Your task to perform on an android device: find which apps use the phone's location Image 0: 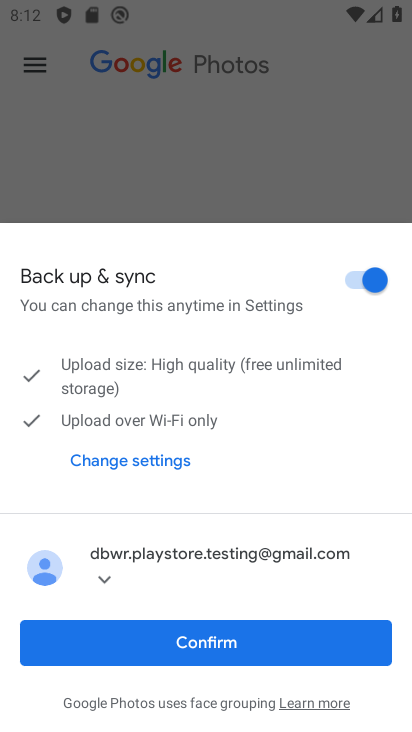
Step 0: press home button
Your task to perform on an android device: find which apps use the phone's location Image 1: 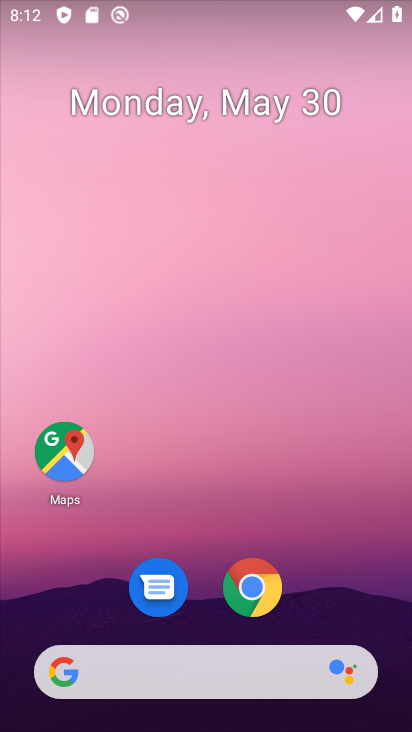
Step 1: drag from (202, 612) to (253, 15)
Your task to perform on an android device: find which apps use the phone's location Image 2: 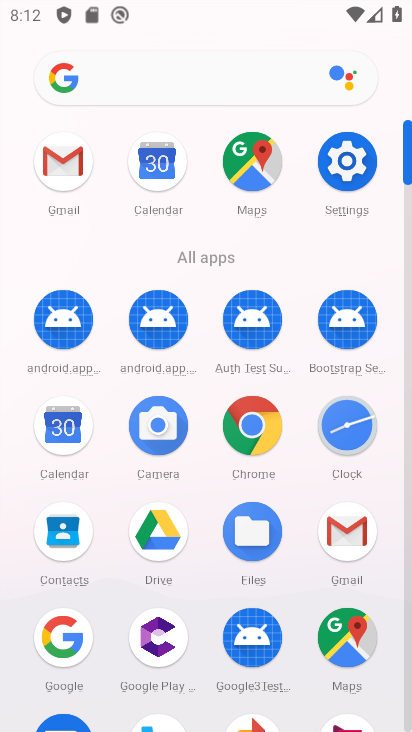
Step 2: click (344, 155)
Your task to perform on an android device: find which apps use the phone's location Image 3: 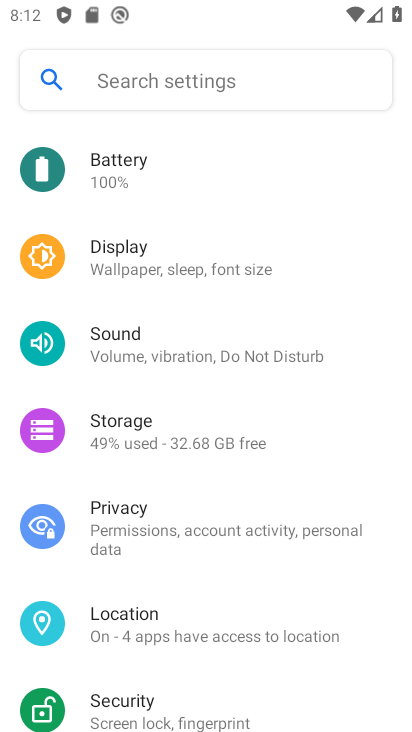
Step 3: click (153, 633)
Your task to perform on an android device: find which apps use the phone's location Image 4: 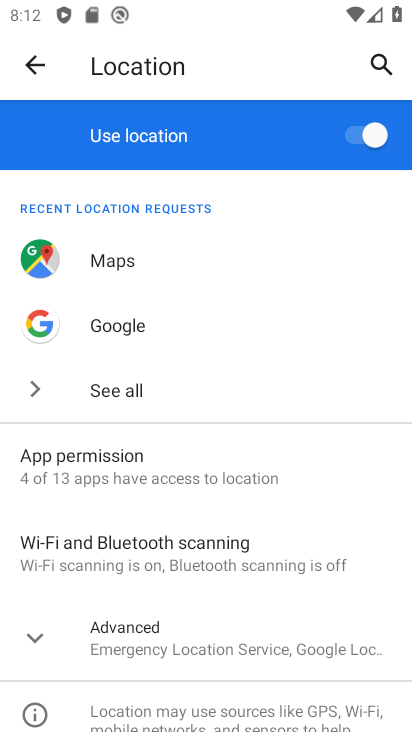
Step 4: click (141, 469)
Your task to perform on an android device: find which apps use the phone's location Image 5: 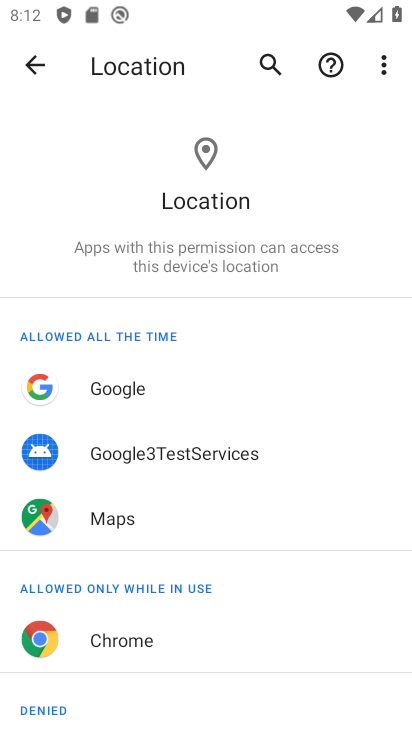
Step 5: task complete